Your task to perform on an android device: check out phone information Image 0: 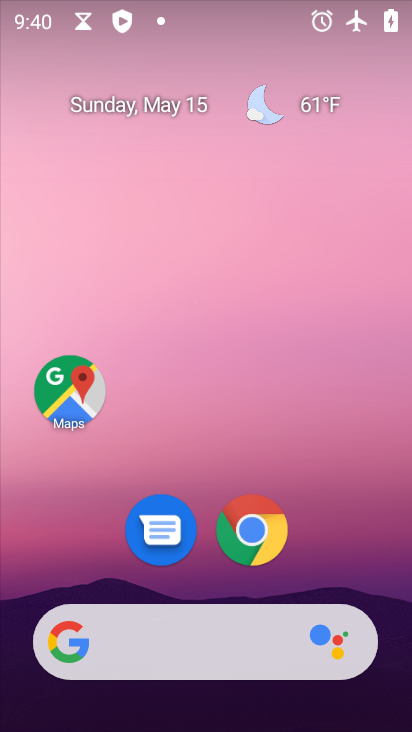
Step 0: drag from (216, 718) to (228, 158)
Your task to perform on an android device: check out phone information Image 1: 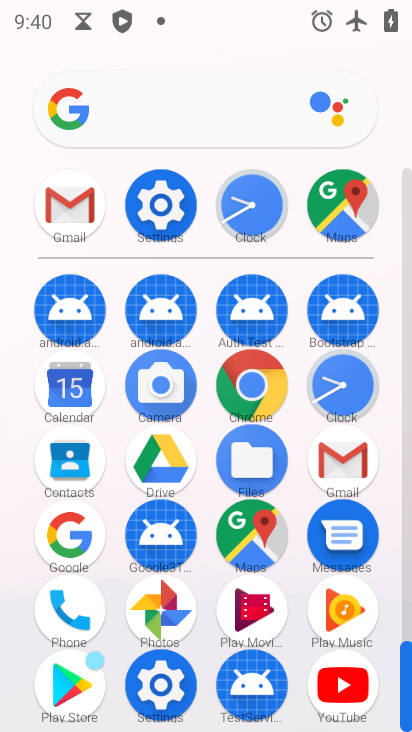
Step 1: click (160, 202)
Your task to perform on an android device: check out phone information Image 2: 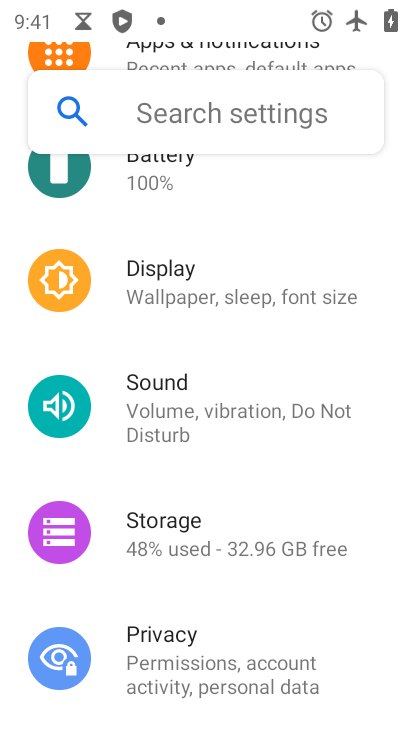
Step 2: drag from (247, 210) to (226, 453)
Your task to perform on an android device: check out phone information Image 3: 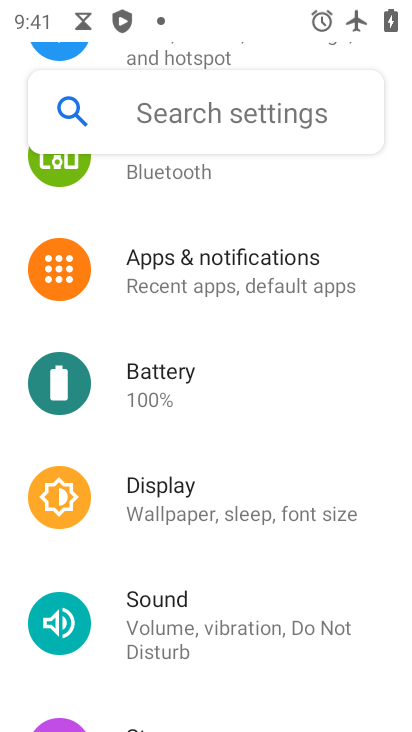
Step 3: drag from (165, 696) to (168, 193)
Your task to perform on an android device: check out phone information Image 4: 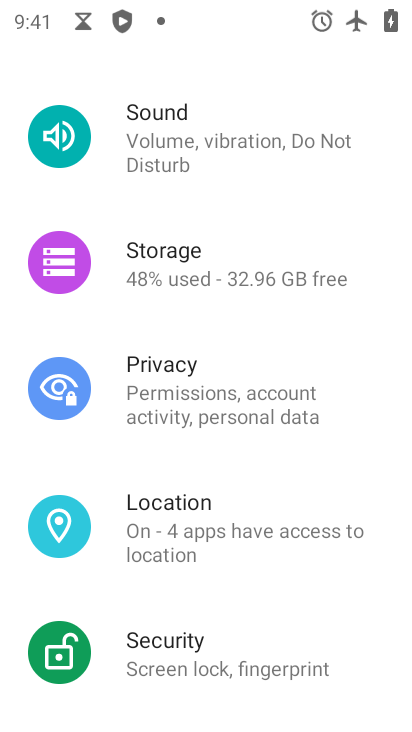
Step 4: drag from (154, 697) to (160, 156)
Your task to perform on an android device: check out phone information Image 5: 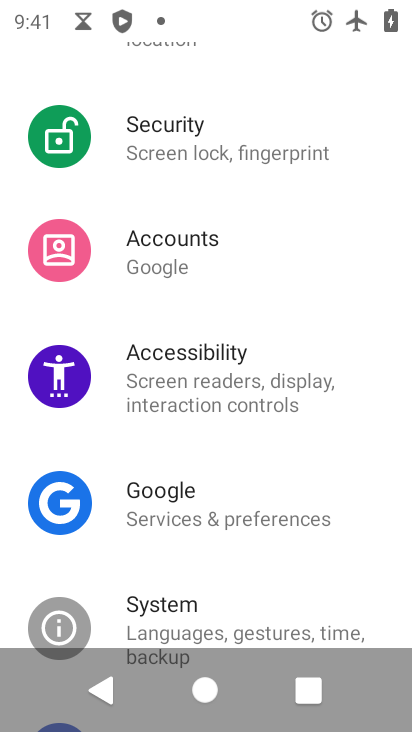
Step 5: drag from (209, 553) to (208, 45)
Your task to perform on an android device: check out phone information Image 6: 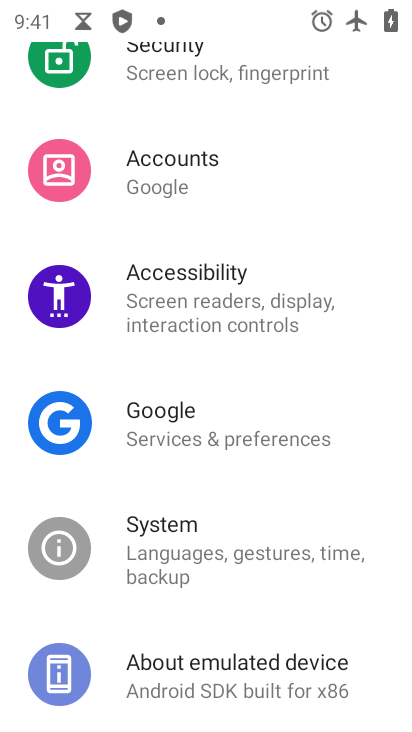
Step 6: click (178, 673)
Your task to perform on an android device: check out phone information Image 7: 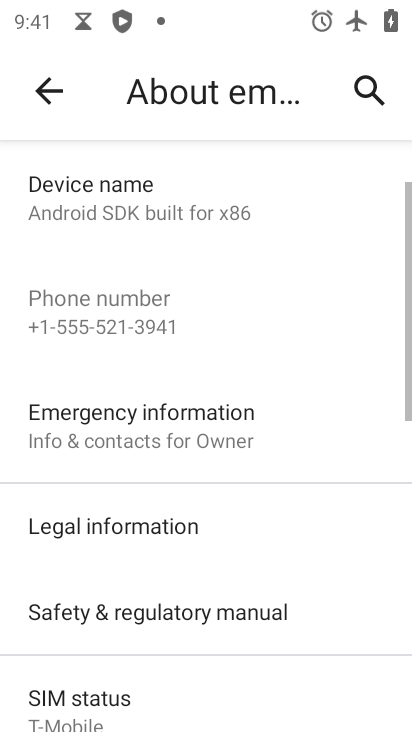
Step 7: task complete